Your task to perform on an android device: How big is the earth? Image 0: 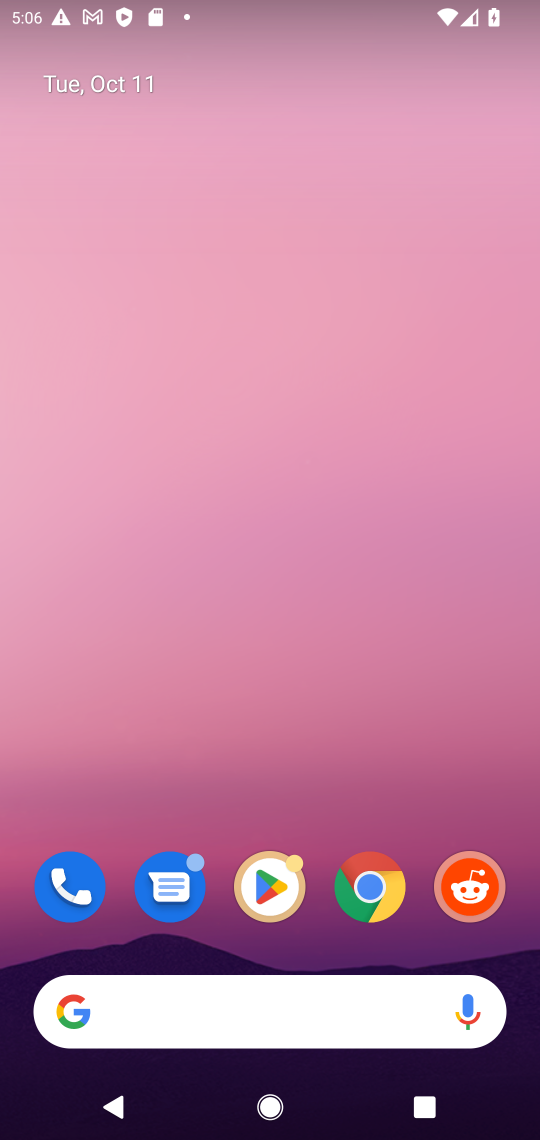
Step 0: click (233, 999)
Your task to perform on an android device: How big is the earth? Image 1: 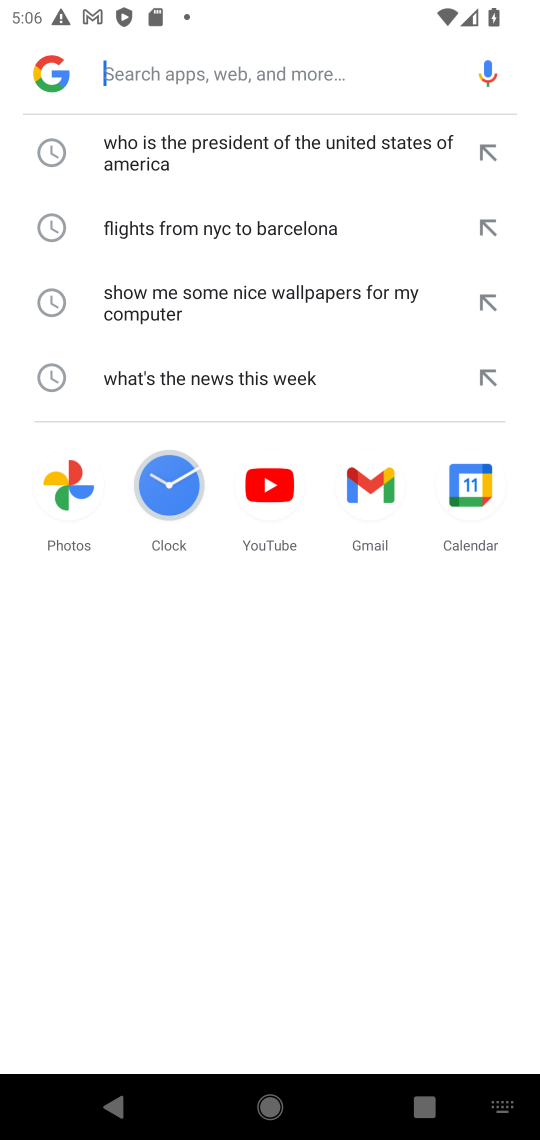
Step 1: type "How big is the earth?"
Your task to perform on an android device: How big is the earth? Image 2: 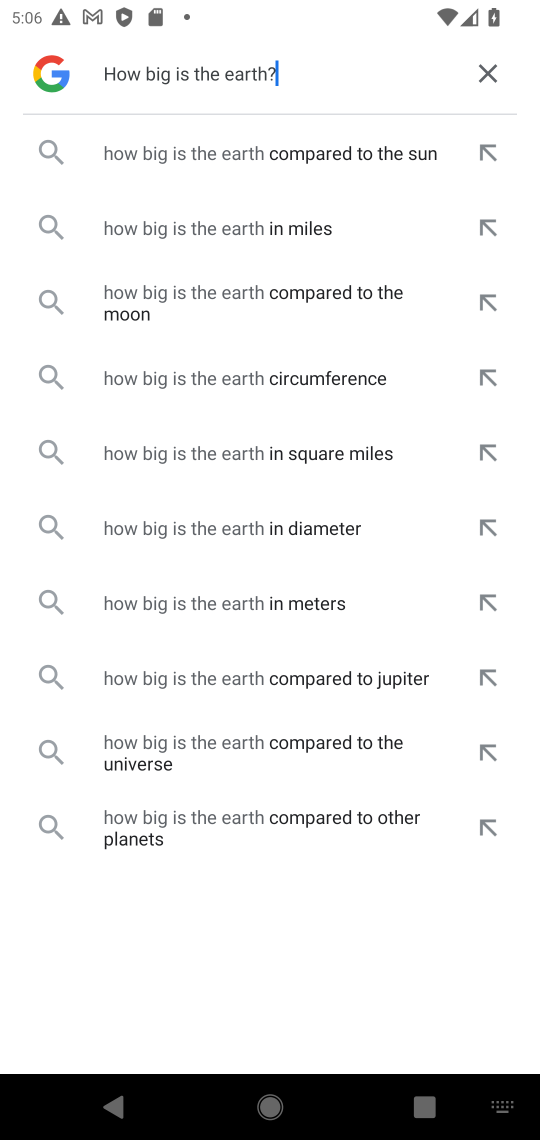
Step 2: click (361, 226)
Your task to perform on an android device: How big is the earth? Image 3: 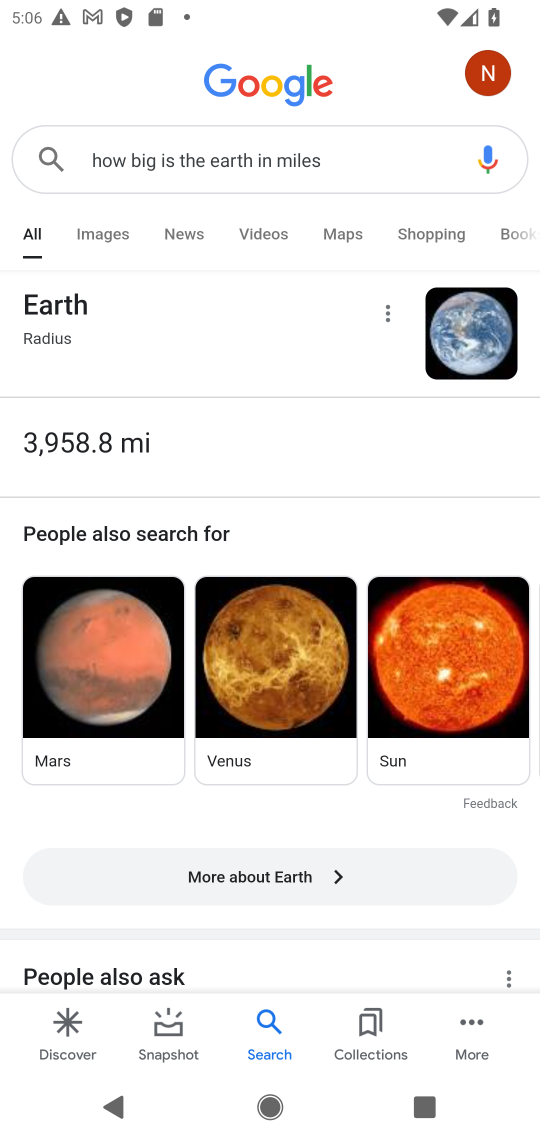
Step 3: task complete